Your task to perform on an android device: change notifications settings Image 0: 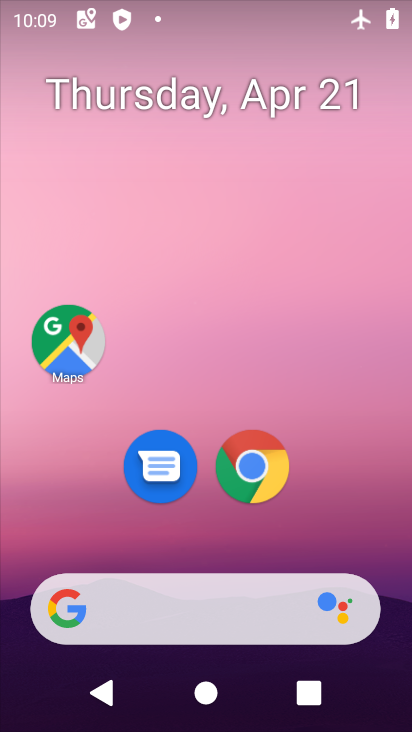
Step 0: drag from (353, 506) to (366, 79)
Your task to perform on an android device: change notifications settings Image 1: 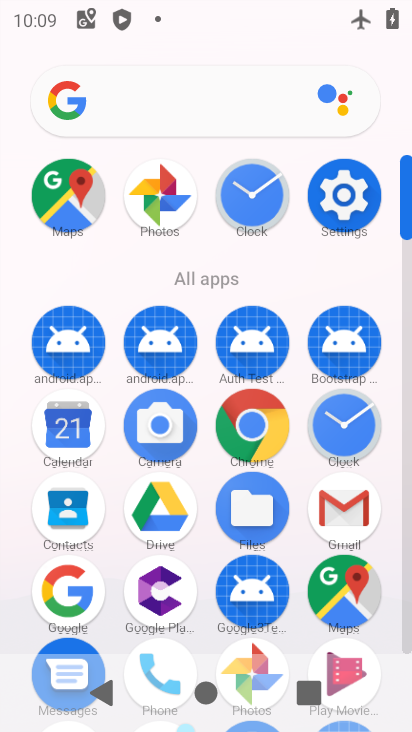
Step 1: click (354, 200)
Your task to perform on an android device: change notifications settings Image 2: 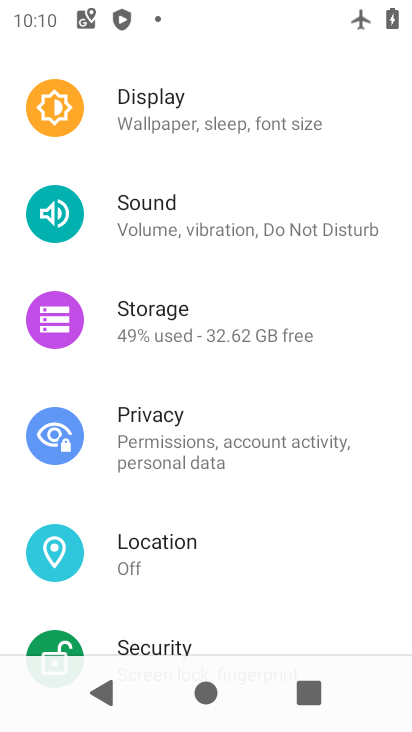
Step 2: drag from (219, 479) to (293, 166)
Your task to perform on an android device: change notifications settings Image 3: 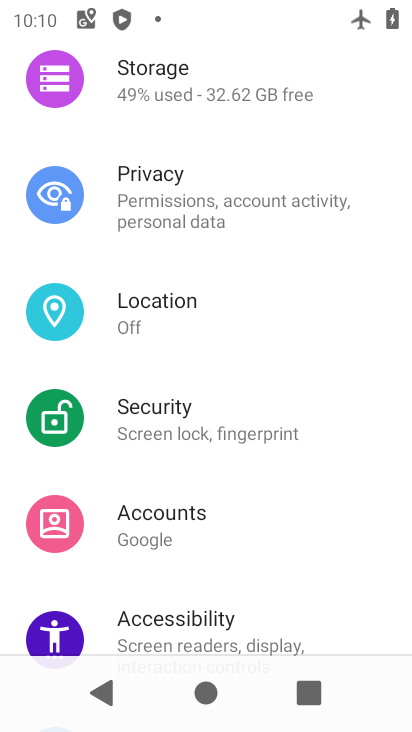
Step 3: drag from (220, 570) to (272, 168)
Your task to perform on an android device: change notifications settings Image 4: 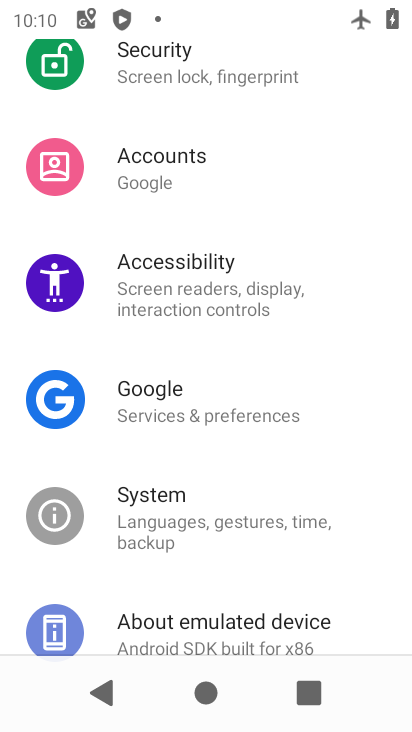
Step 4: drag from (268, 185) to (232, 687)
Your task to perform on an android device: change notifications settings Image 5: 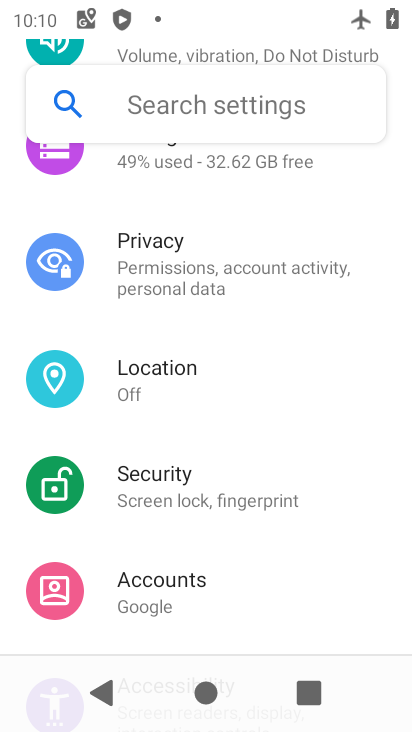
Step 5: drag from (220, 242) to (273, 673)
Your task to perform on an android device: change notifications settings Image 6: 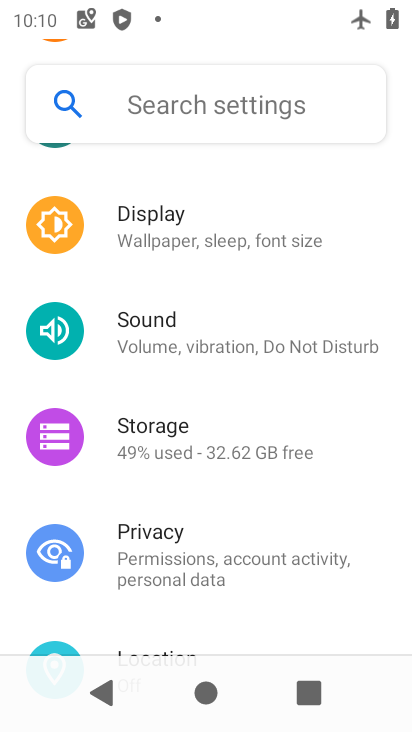
Step 6: drag from (294, 268) to (281, 549)
Your task to perform on an android device: change notifications settings Image 7: 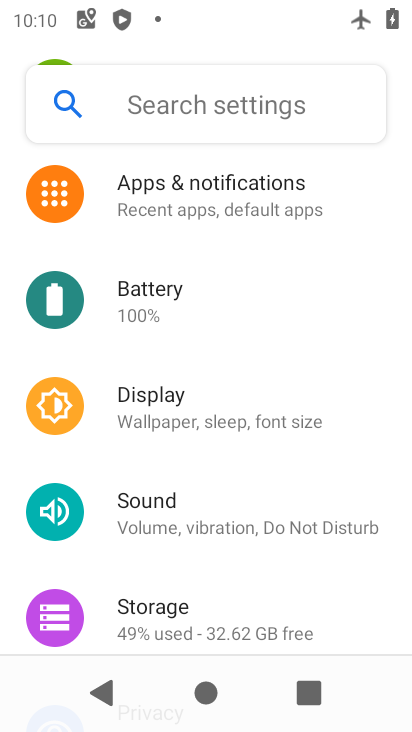
Step 7: click (232, 185)
Your task to perform on an android device: change notifications settings Image 8: 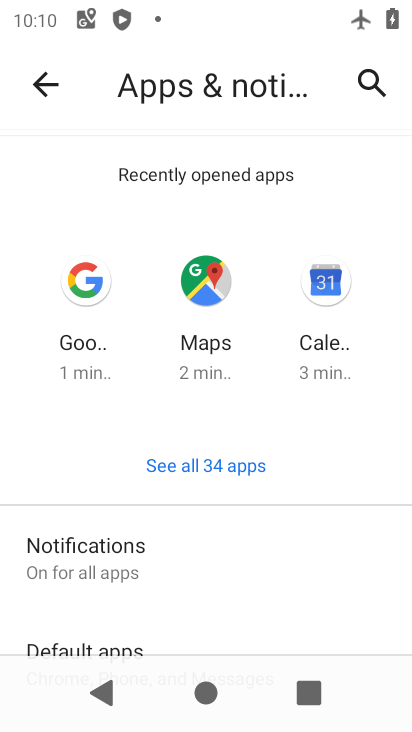
Step 8: click (143, 558)
Your task to perform on an android device: change notifications settings Image 9: 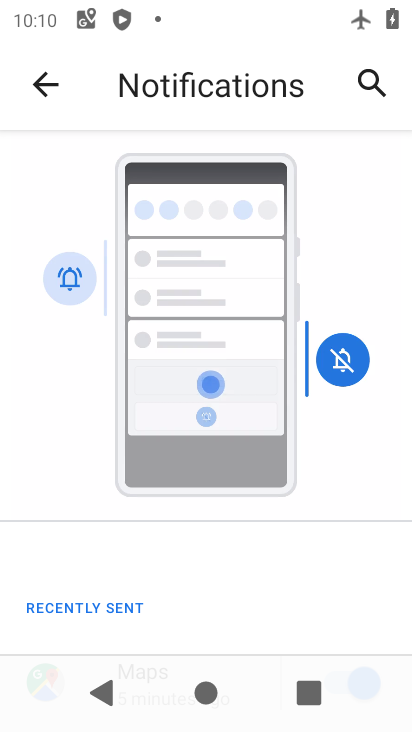
Step 9: drag from (225, 566) to (261, 155)
Your task to perform on an android device: change notifications settings Image 10: 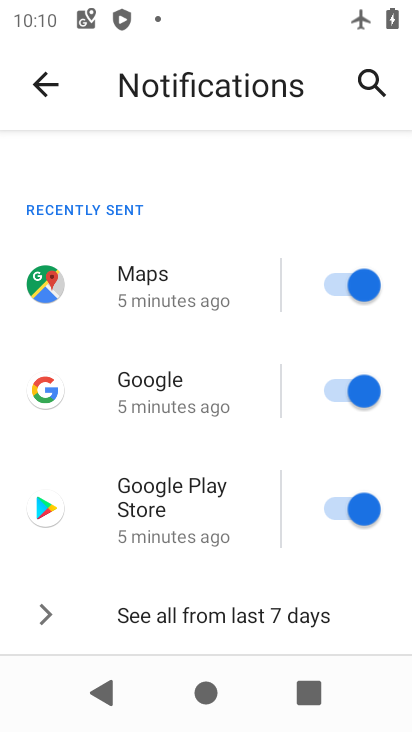
Step 10: drag from (180, 587) to (310, 278)
Your task to perform on an android device: change notifications settings Image 11: 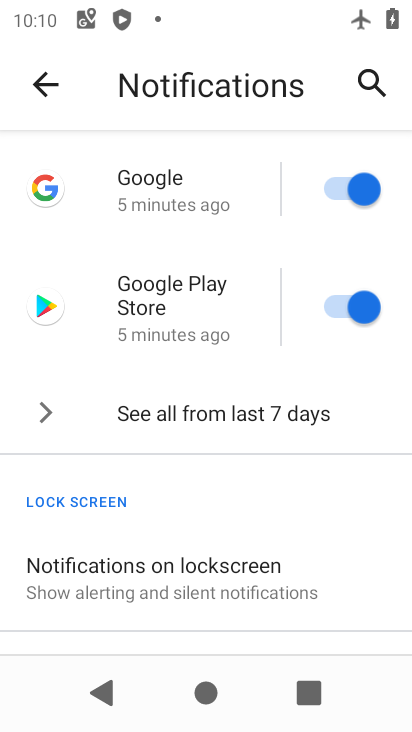
Step 11: drag from (284, 548) to (329, 344)
Your task to perform on an android device: change notifications settings Image 12: 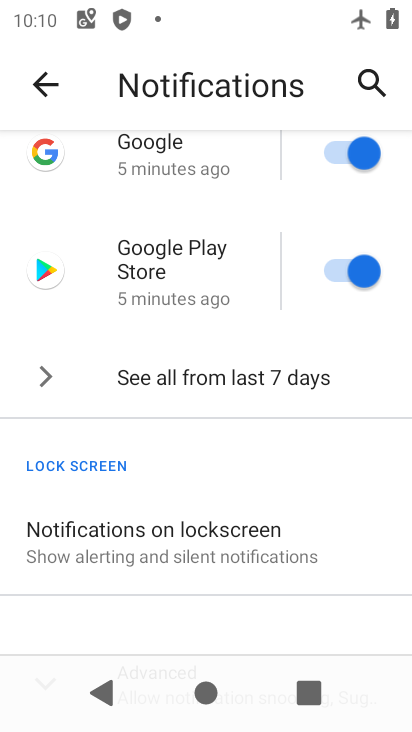
Step 12: drag from (260, 624) to (316, 176)
Your task to perform on an android device: change notifications settings Image 13: 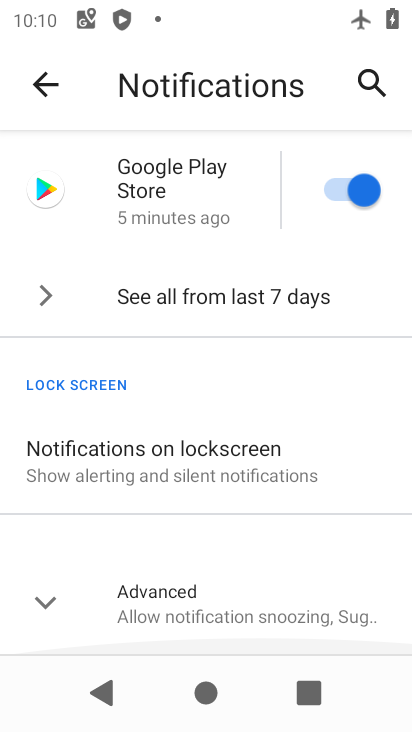
Step 13: click (163, 596)
Your task to perform on an android device: change notifications settings Image 14: 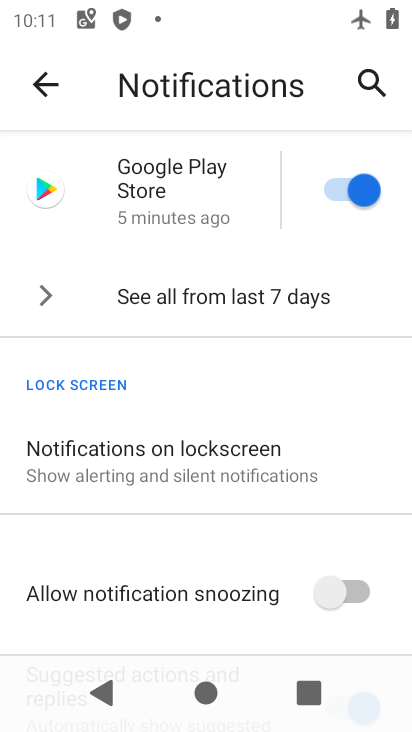
Step 14: click (304, 580)
Your task to perform on an android device: change notifications settings Image 15: 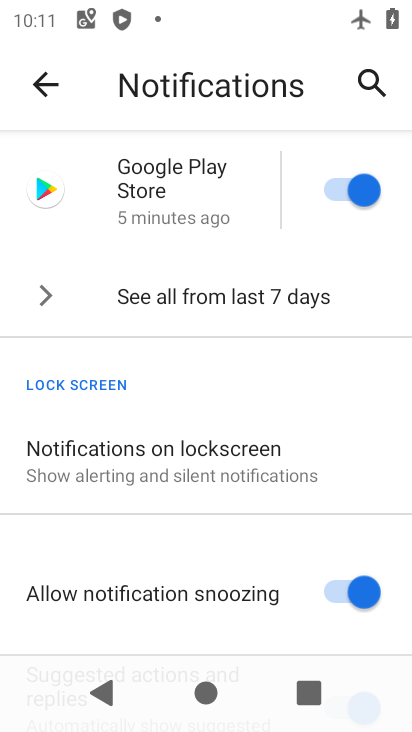
Step 15: task complete